Your task to perform on an android device: Open maps Image 0: 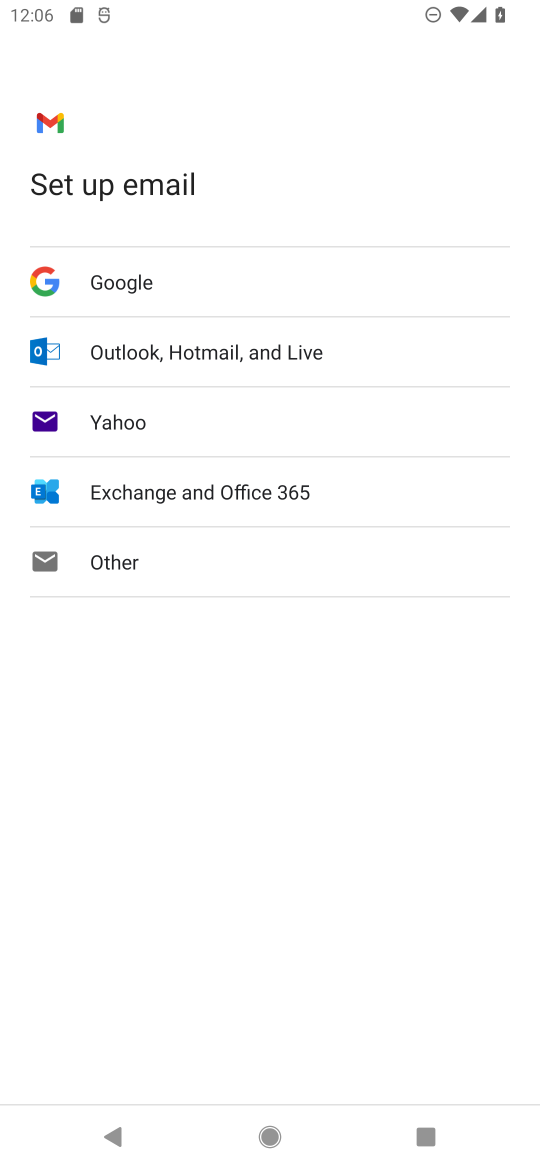
Step 0: press home button
Your task to perform on an android device: Open maps Image 1: 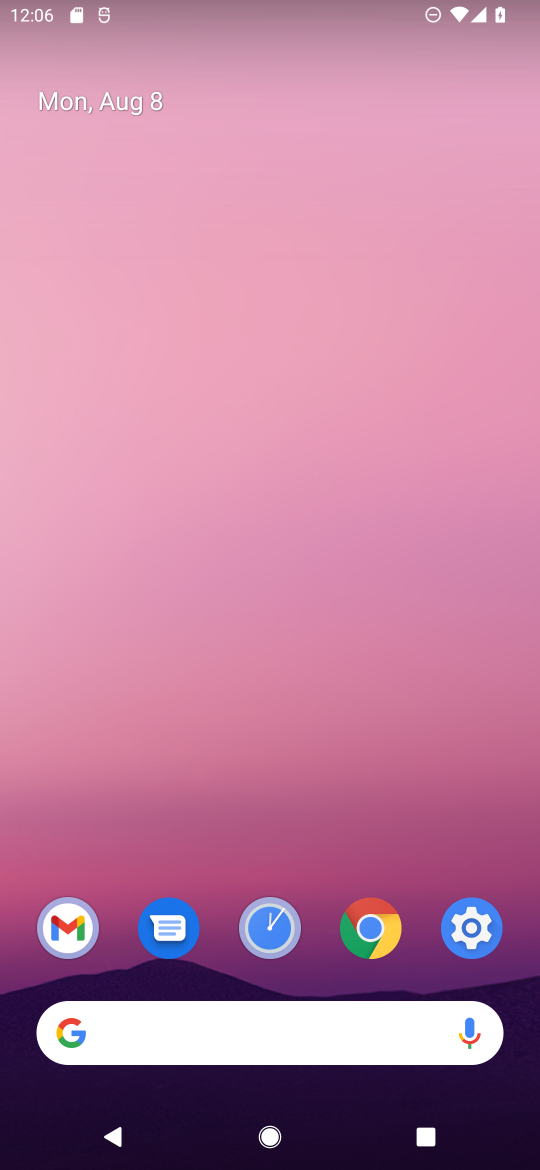
Step 1: drag from (348, 1066) to (208, 278)
Your task to perform on an android device: Open maps Image 2: 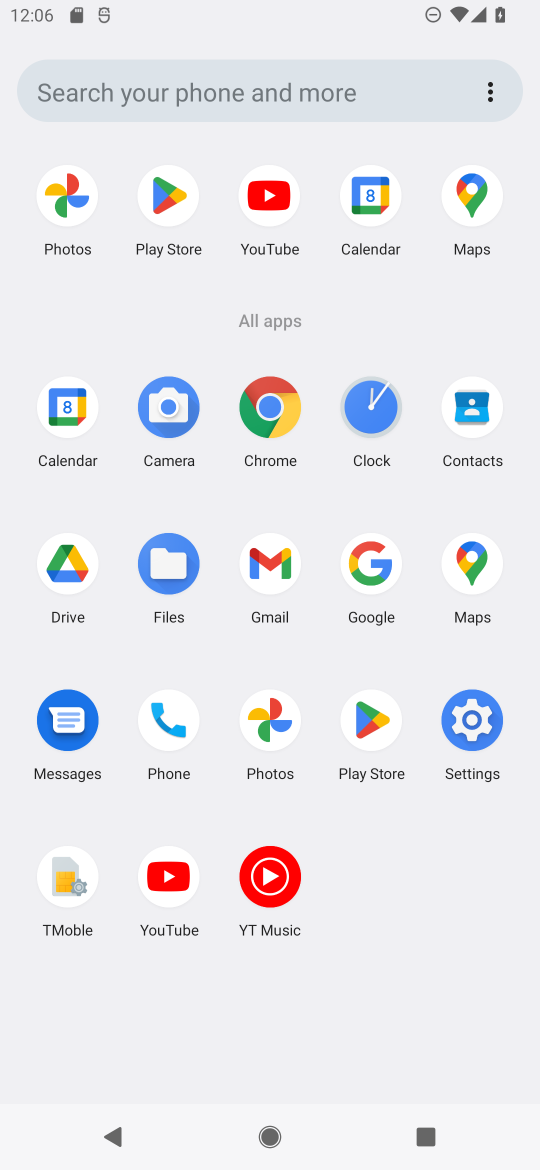
Step 2: click (473, 577)
Your task to perform on an android device: Open maps Image 3: 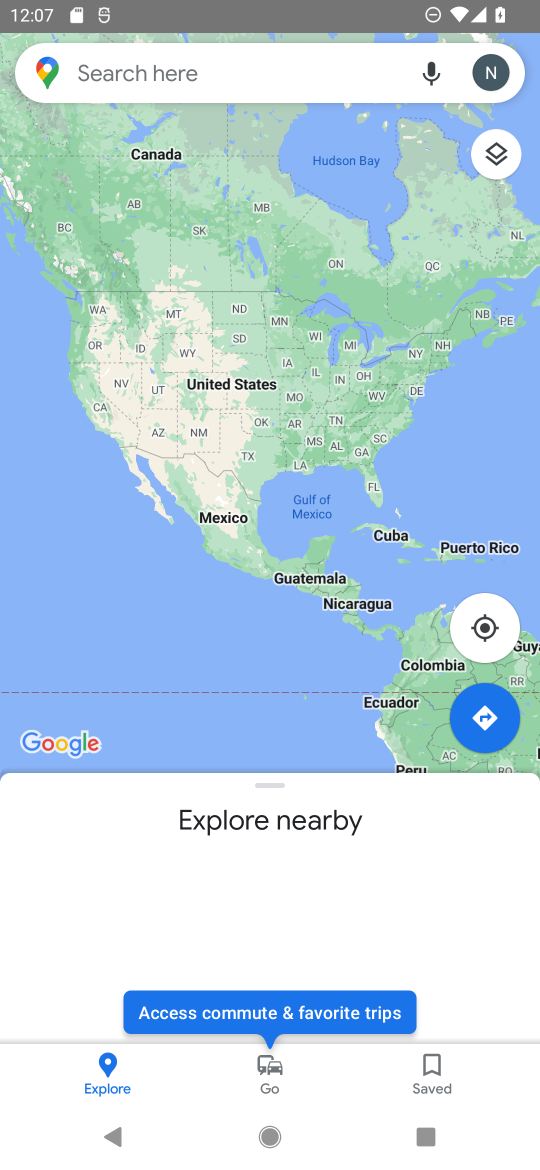
Step 3: click (485, 642)
Your task to perform on an android device: Open maps Image 4: 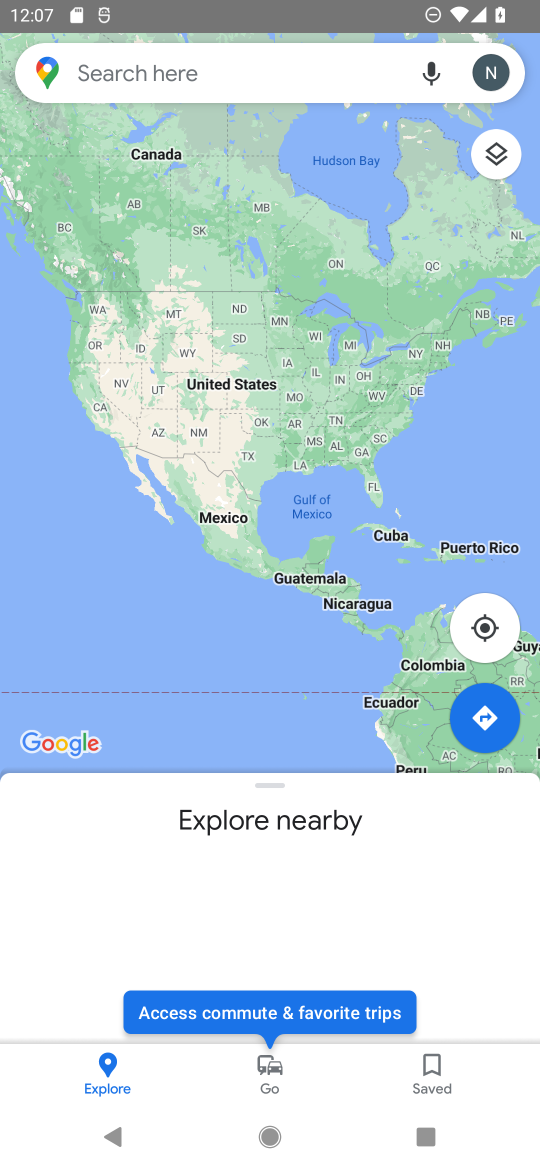
Step 4: click (485, 642)
Your task to perform on an android device: Open maps Image 5: 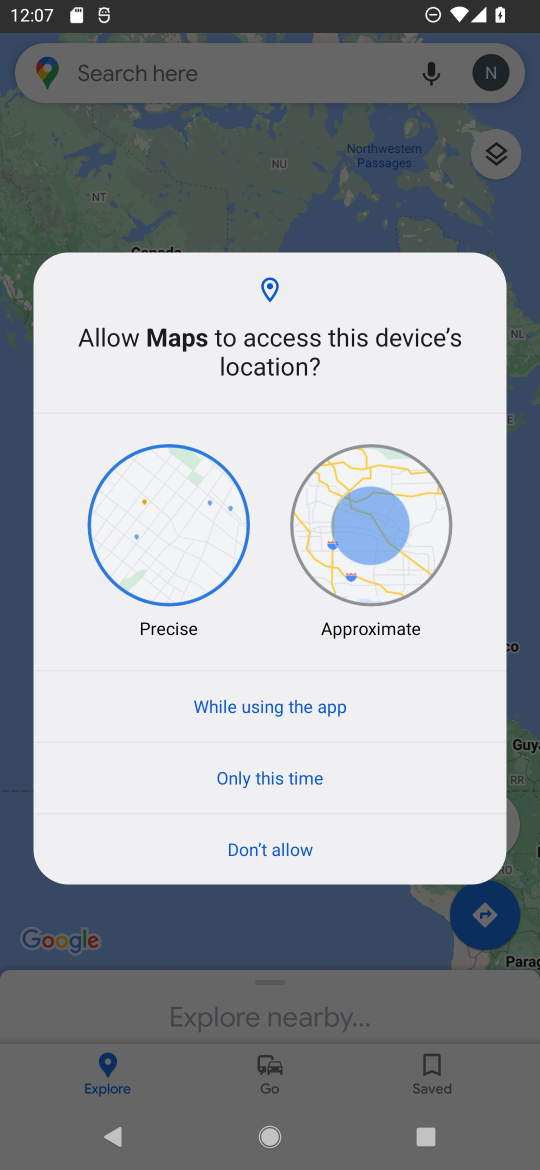
Step 5: click (319, 686)
Your task to perform on an android device: Open maps Image 6: 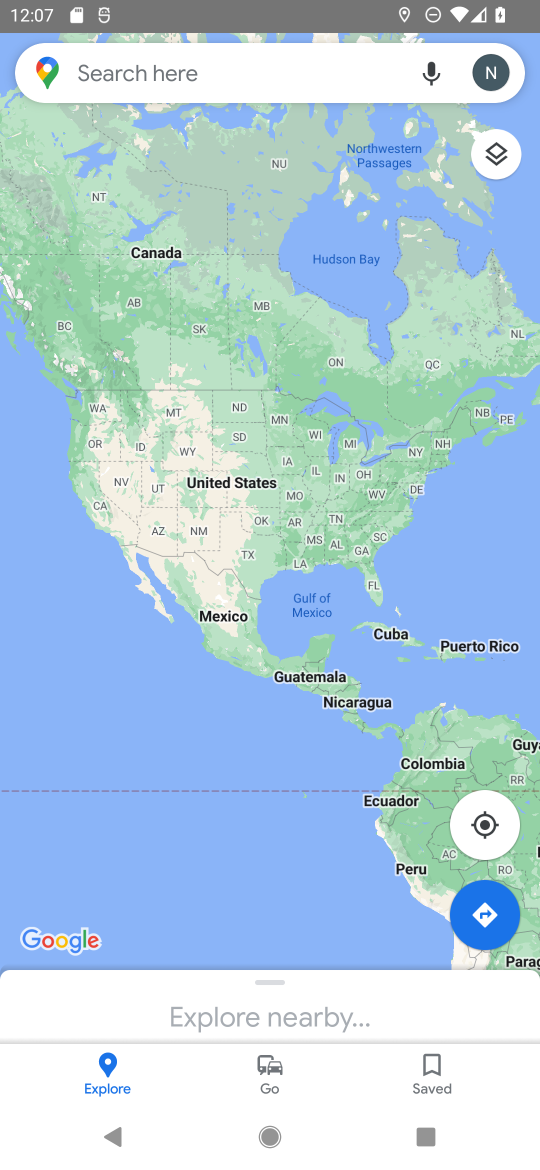
Step 6: click (487, 823)
Your task to perform on an android device: Open maps Image 7: 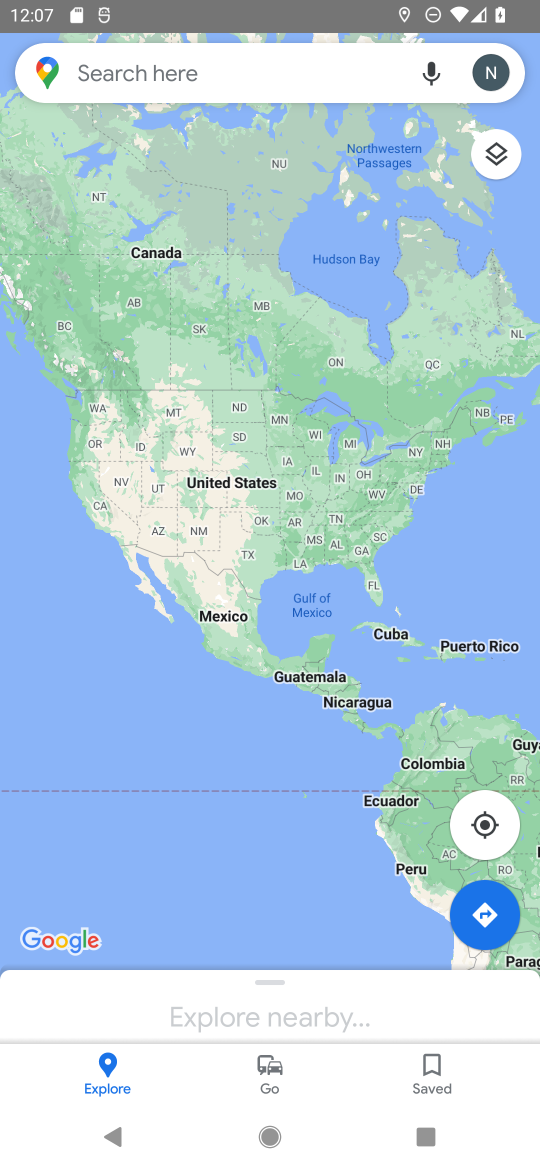
Step 7: click (487, 823)
Your task to perform on an android device: Open maps Image 8: 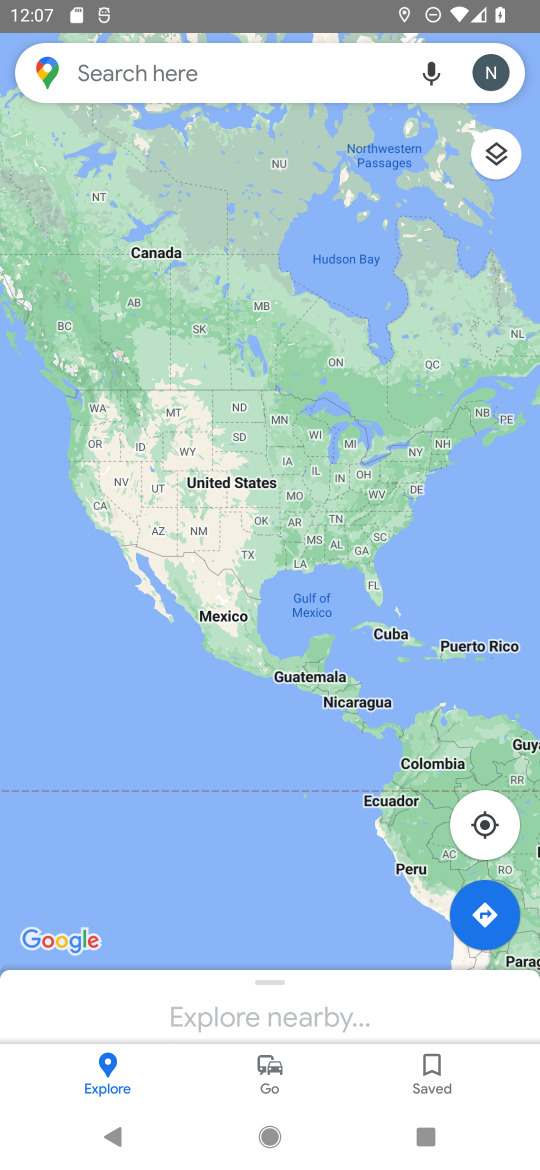
Step 8: click (487, 823)
Your task to perform on an android device: Open maps Image 9: 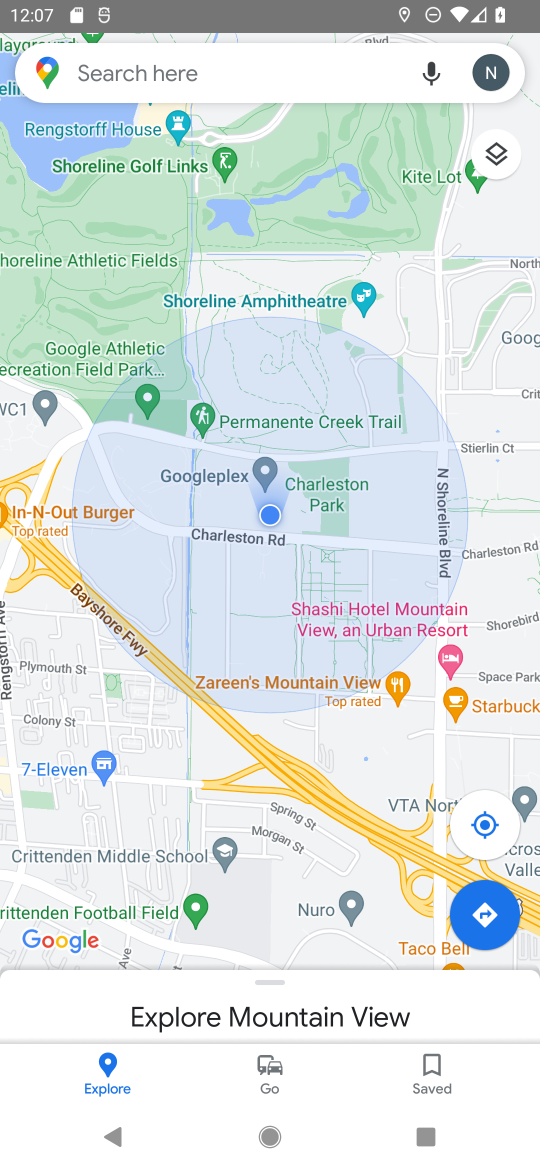
Step 9: task complete